Your task to perform on an android device: Search for Italian restaurants on Maps Image 0: 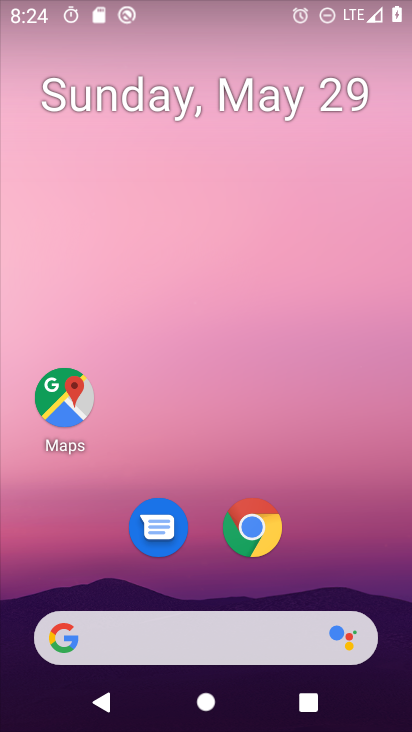
Step 0: drag from (396, 625) to (313, 37)
Your task to perform on an android device: Search for Italian restaurants on Maps Image 1: 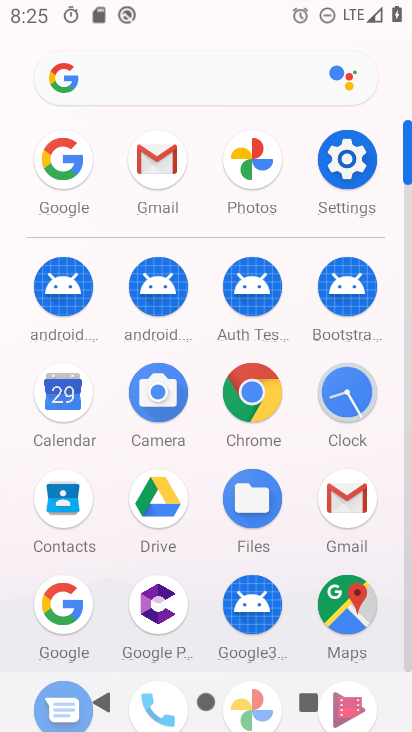
Step 1: click (350, 584)
Your task to perform on an android device: Search for Italian restaurants on Maps Image 2: 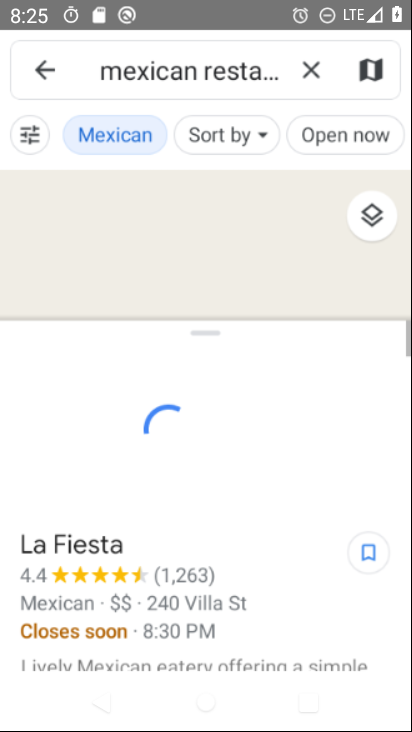
Step 2: click (304, 70)
Your task to perform on an android device: Search for Italian restaurants on Maps Image 3: 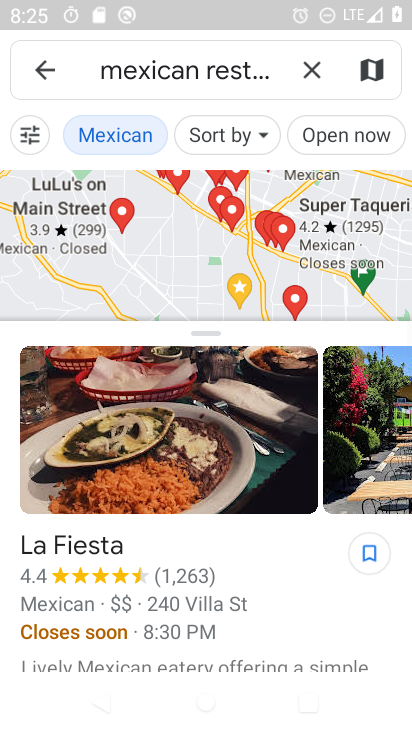
Step 3: click (312, 67)
Your task to perform on an android device: Search for Italian restaurants on Maps Image 4: 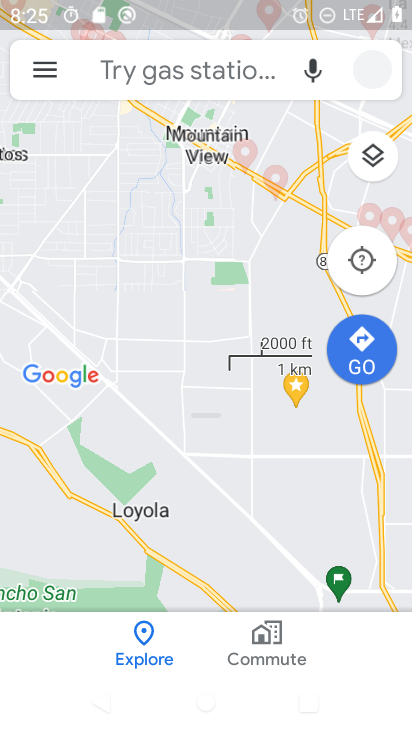
Step 4: click (190, 69)
Your task to perform on an android device: Search for Italian restaurants on Maps Image 5: 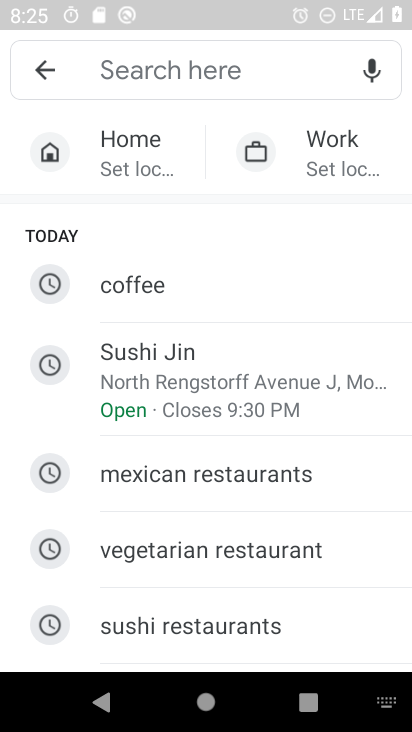
Step 5: drag from (184, 616) to (255, 190)
Your task to perform on an android device: Search for Italian restaurants on Maps Image 6: 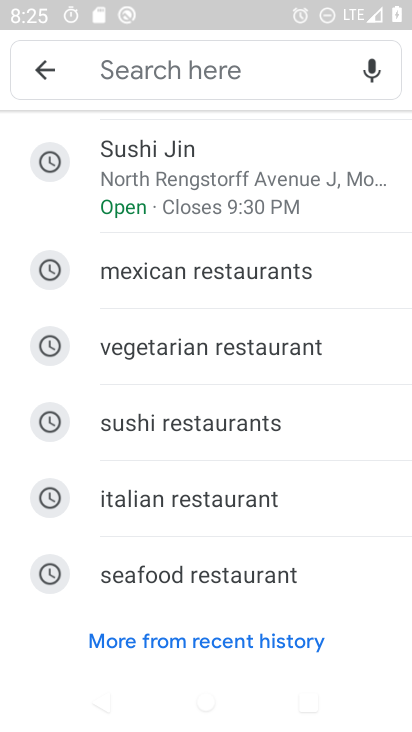
Step 6: click (204, 494)
Your task to perform on an android device: Search for Italian restaurants on Maps Image 7: 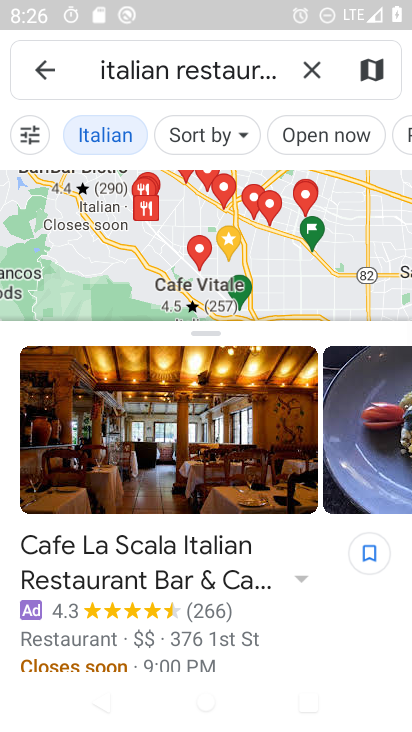
Step 7: task complete